Your task to perform on an android device: change the upload size in google photos Image 0: 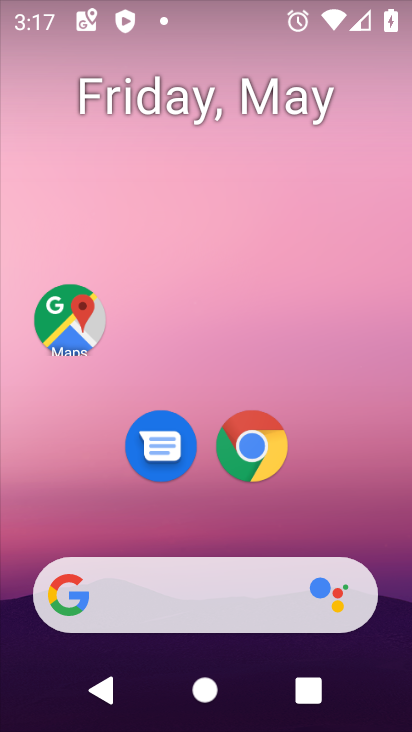
Step 0: drag from (395, 578) to (304, 161)
Your task to perform on an android device: change the upload size in google photos Image 1: 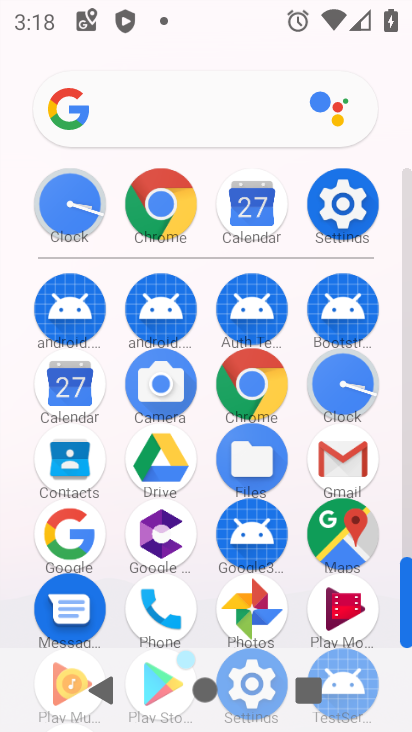
Step 1: click (247, 616)
Your task to perform on an android device: change the upload size in google photos Image 2: 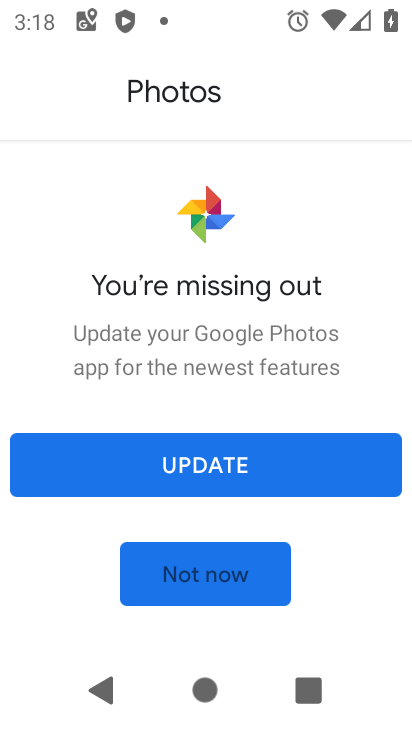
Step 2: click (233, 478)
Your task to perform on an android device: change the upload size in google photos Image 3: 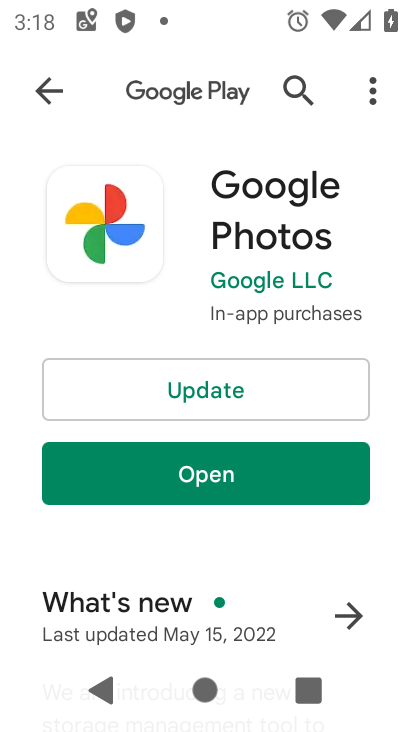
Step 3: click (230, 383)
Your task to perform on an android device: change the upload size in google photos Image 4: 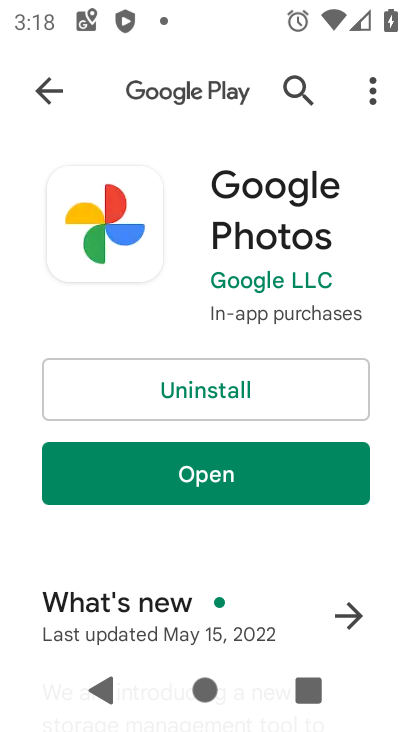
Step 4: click (300, 483)
Your task to perform on an android device: change the upload size in google photos Image 5: 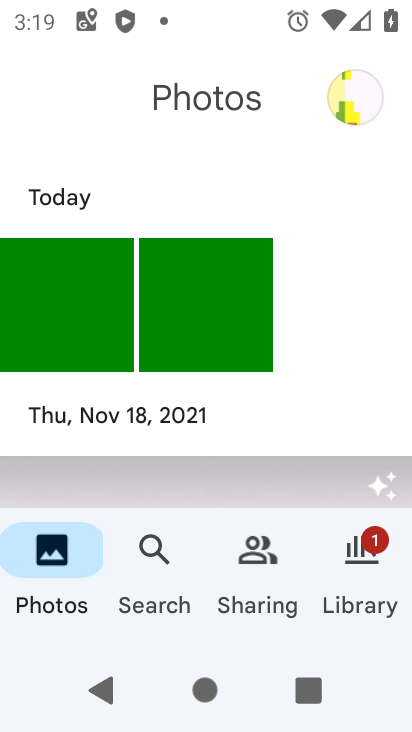
Step 5: click (357, 102)
Your task to perform on an android device: change the upload size in google photos Image 6: 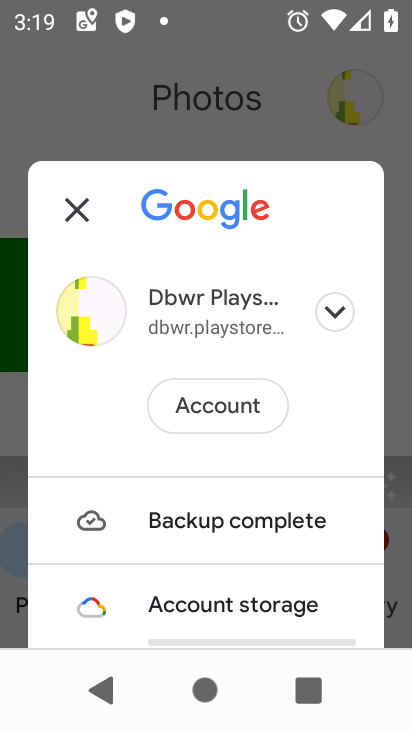
Step 6: drag from (256, 595) to (215, 200)
Your task to perform on an android device: change the upload size in google photos Image 7: 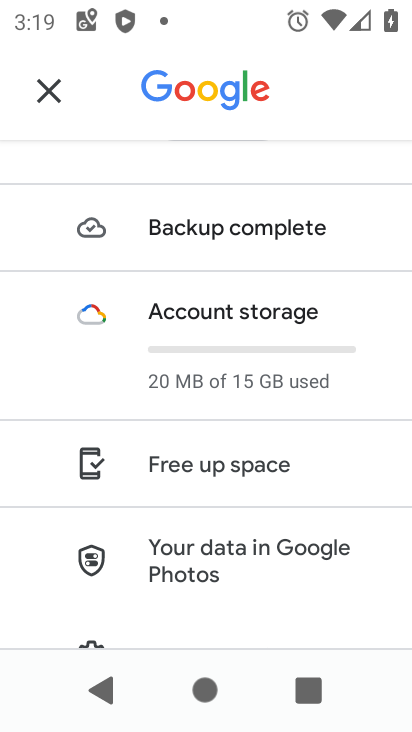
Step 7: drag from (250, 579) to (223, 267)
Your task to perform on an android device: change the upload size in google photos Image 8: 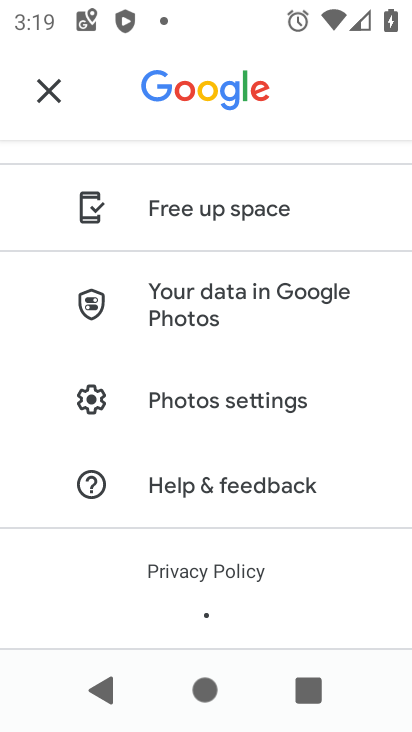
Step 8: click (264, 392)
Your task to perform on an android device: change the upload size in google photos Image 9: 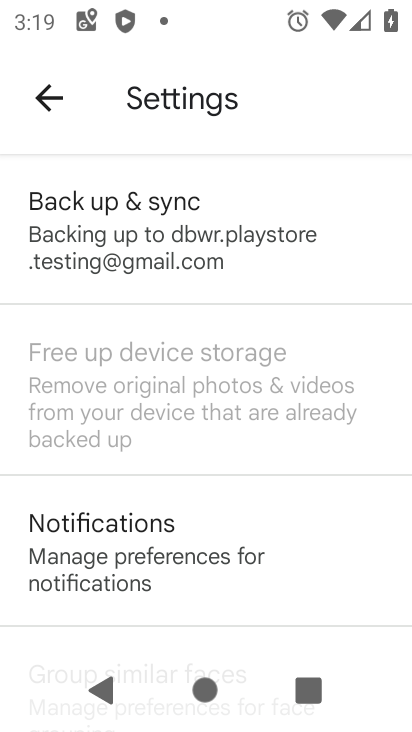
Step 9: click (235, 239)
Your task to perform on an android device: change the upload size in google photos Image 10: 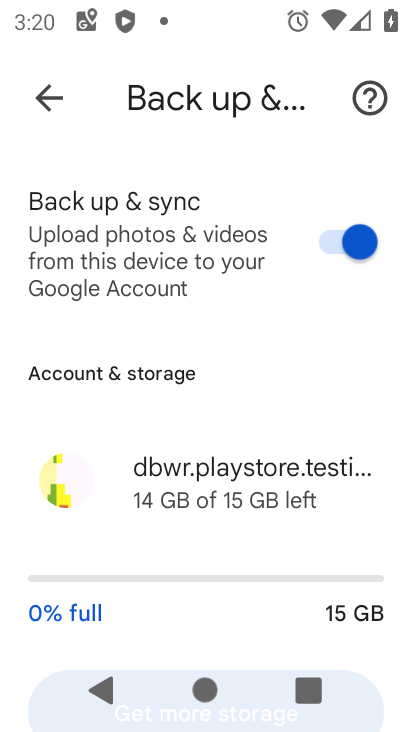
Step 10: drag from (266, 547) to (258, 165)
Your task to perform on an android device: change the upload size in google photos Image 11: 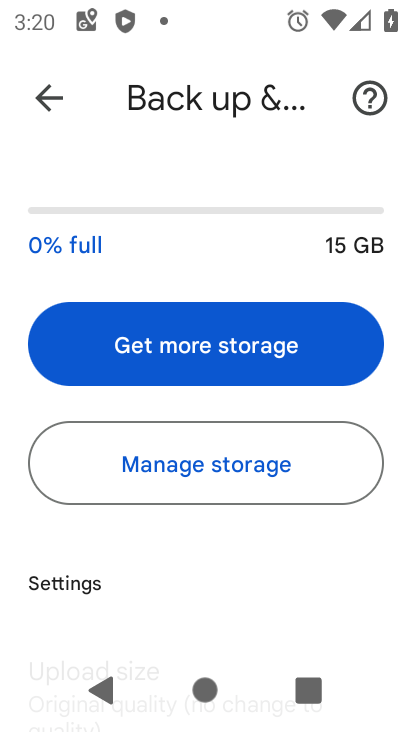
Step 11: drag from (300, 549) to (264, 176)
Your task to perform on an android device: change the upload size in google photos Image 12: 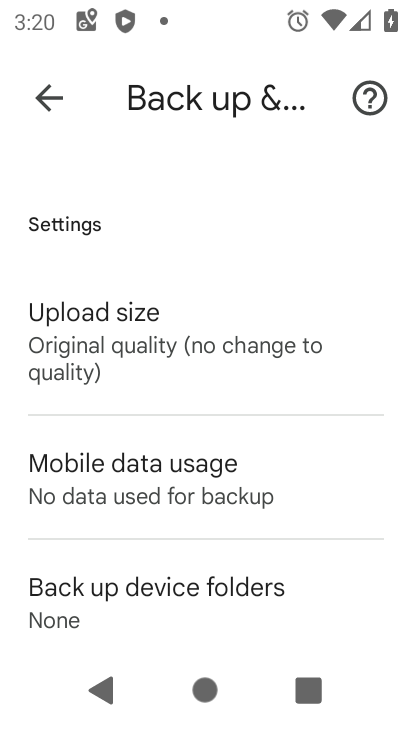
Step 12: click (254, 352)
Your task to perform on an android device: change the upload size in google photos Image 13: 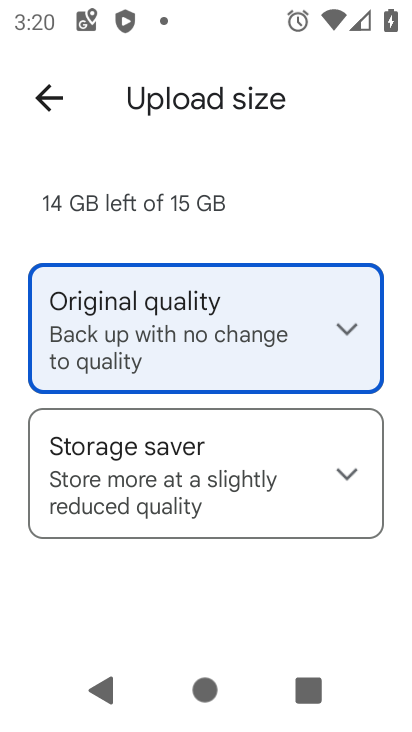
Step 13: click (254, 443)
Your task to perform on an android device: change the upload size in google photos Image 14: 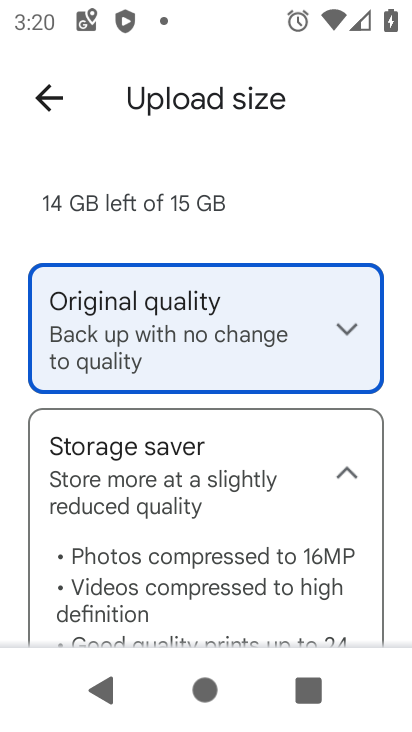
Step 14: drag from (273, 513) to (247, 148)
Your task to perform on an android device: change the upload size in google photos Image 15: 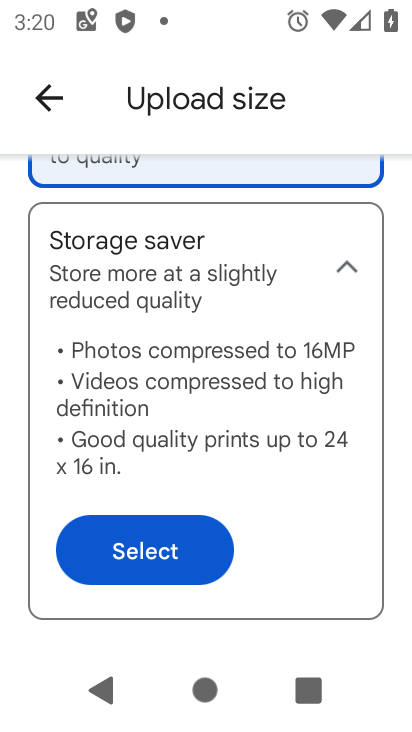
Step 15: click (216, 555)
Your task to perform on an android device: change the upload size in google photos Image 16: 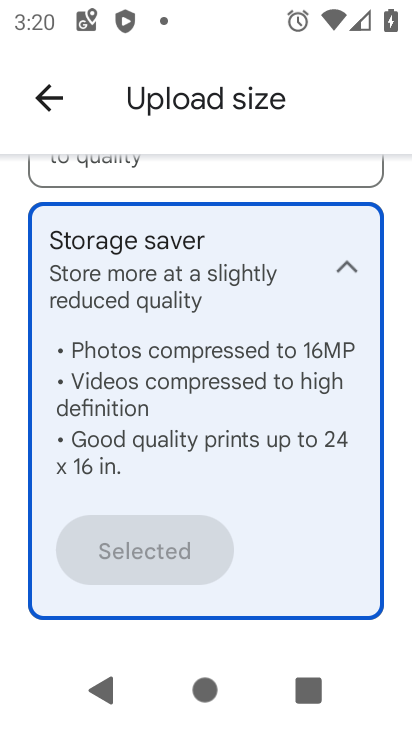
Step 16: task complete